Your task to perform on an android device: Go to location settings Image 0: 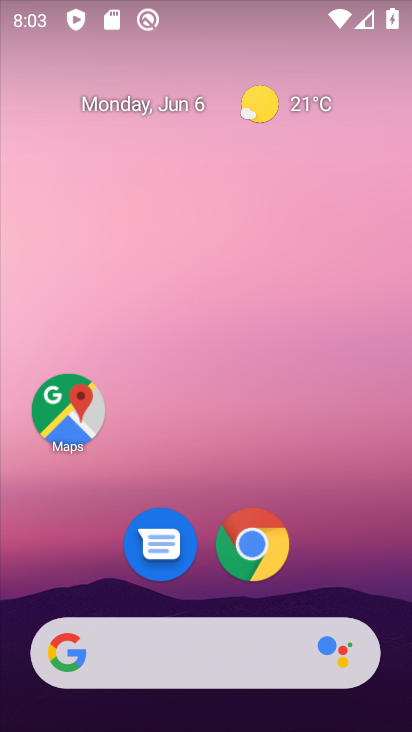
Step 0: drag from (211, 579) to (212, 285)
Your task to perform on an android device: Go to location settings Image 1: 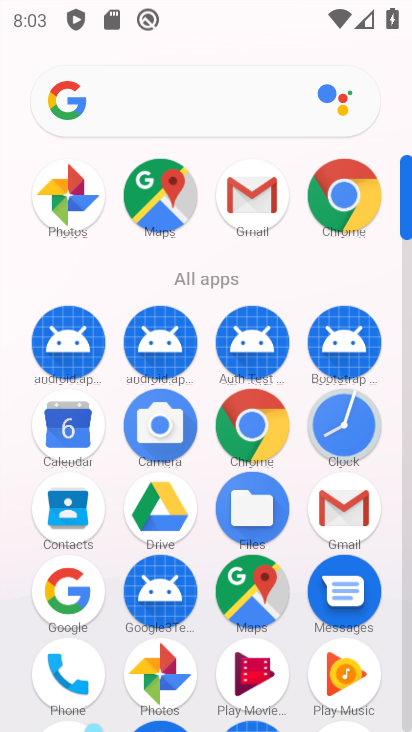
Step 1: drag from (199, 634) to (270, 281)
Your task to perform on an android device: Go to location settings Image 2: 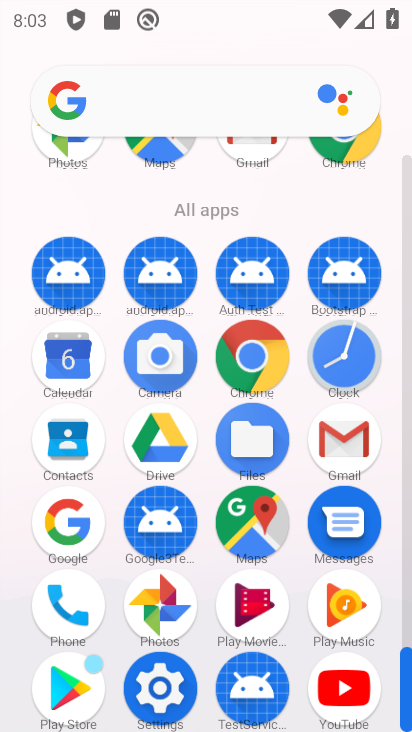
Step 2: click (157, 679)
Your task to perform on an android device: Go to location settings Image 3: 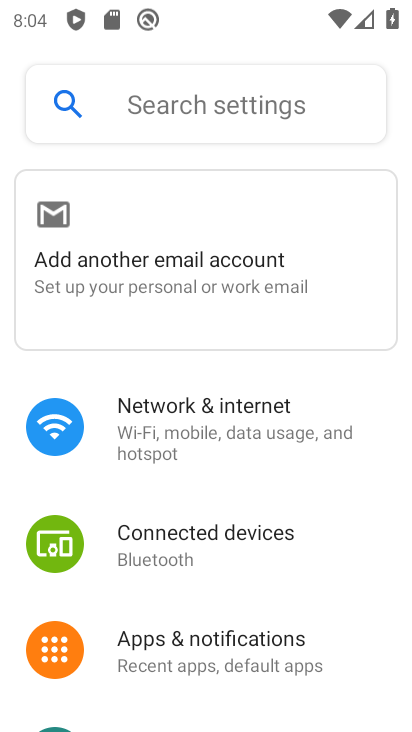
Step 3: drag from (135, 590) to (249, 364)
Your task to perform on an android device: Go to location settings Image 4: 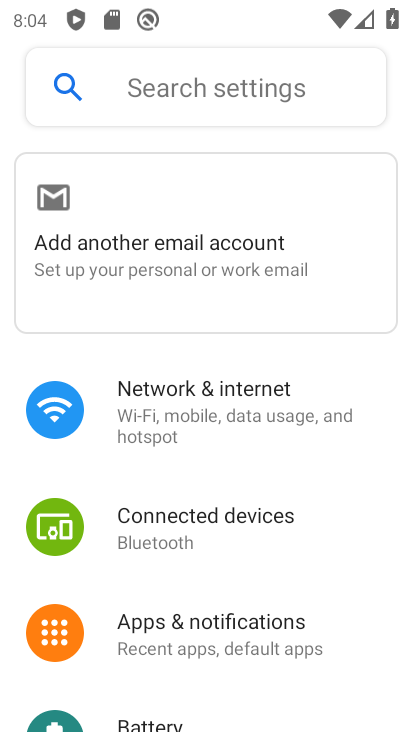
Step 4: drag from (210, 680) to (315, 439)
Your task to perform on an android device: Go to location settings Image 5: 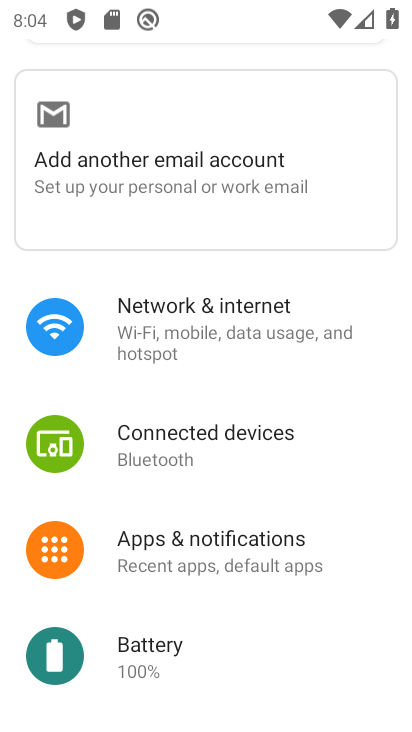
Step 5: drag from (220, 691) to (341, 446)
Your task to perform on an android device: Go to location settings Image 6: 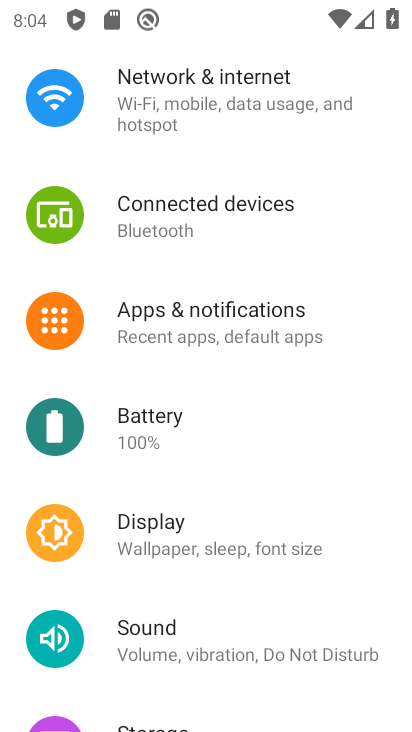
Step 6: drag from (198, 675) to (305, 372)
Your task to perform on an android device: Go to location settings Image 7: 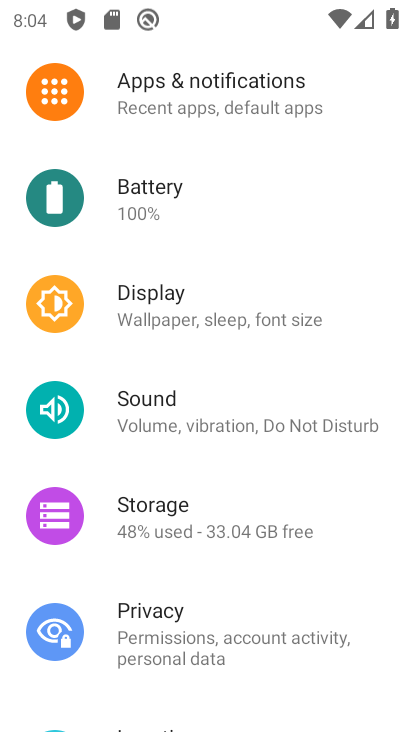
Step 7: drag from (231, 667) to (312, 358)
Your task to perform on an android device: Go to location settings Image 8: 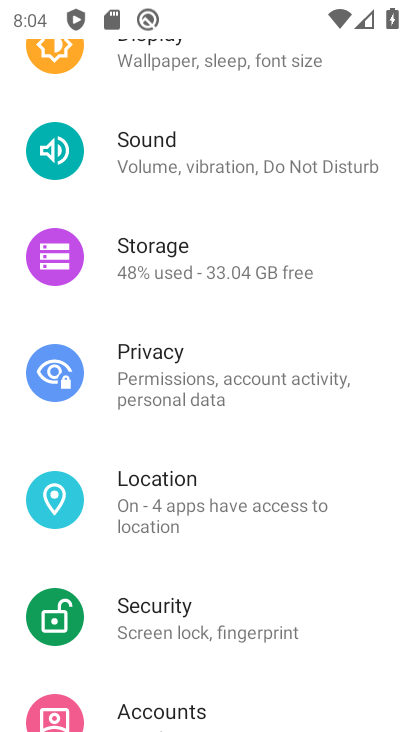
Step 8: drag from (211, 627) to (303, 356)
Your task to perform on an android device: Go to location settings Image 9: 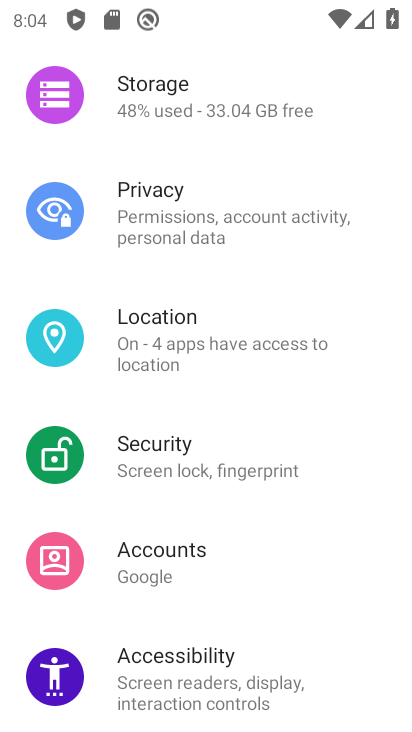
Step 9: click (183, 321)
Your task to perform on an android device: Go to location settings Image 10: 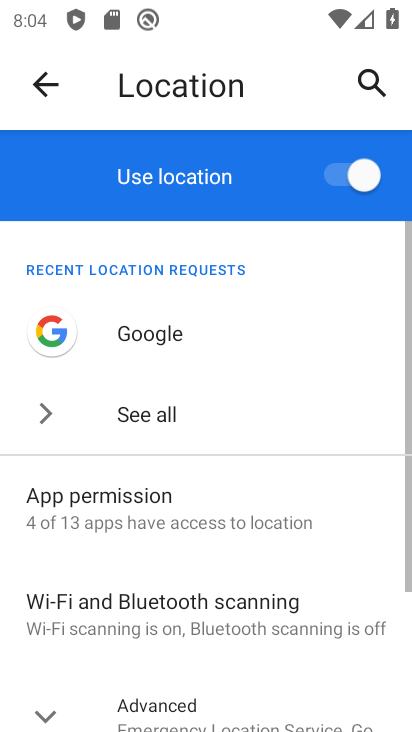
Step 10: task complete